Your task to perform on an android device: Open notification settings Image 0: 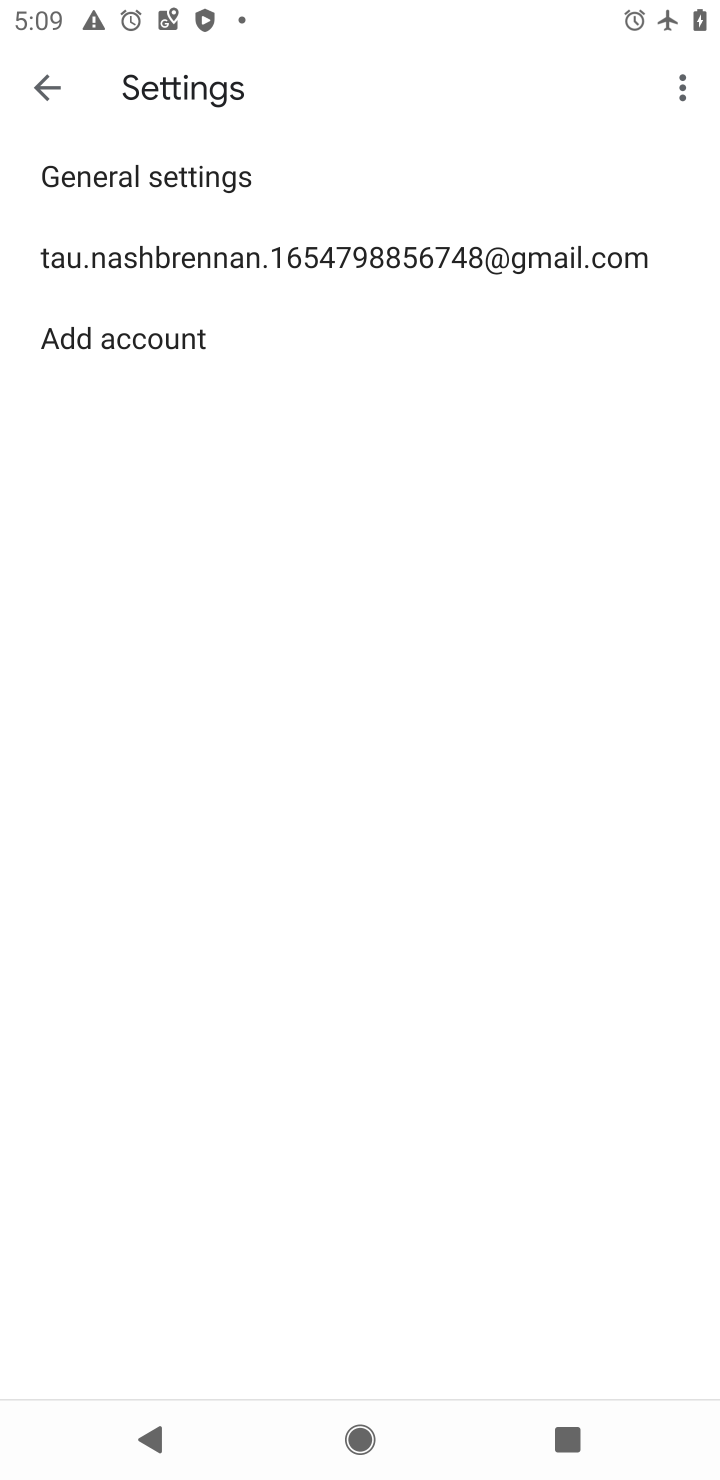
Step 0: press home button
Your task to perform on an android device: Open notification settings Image 1: 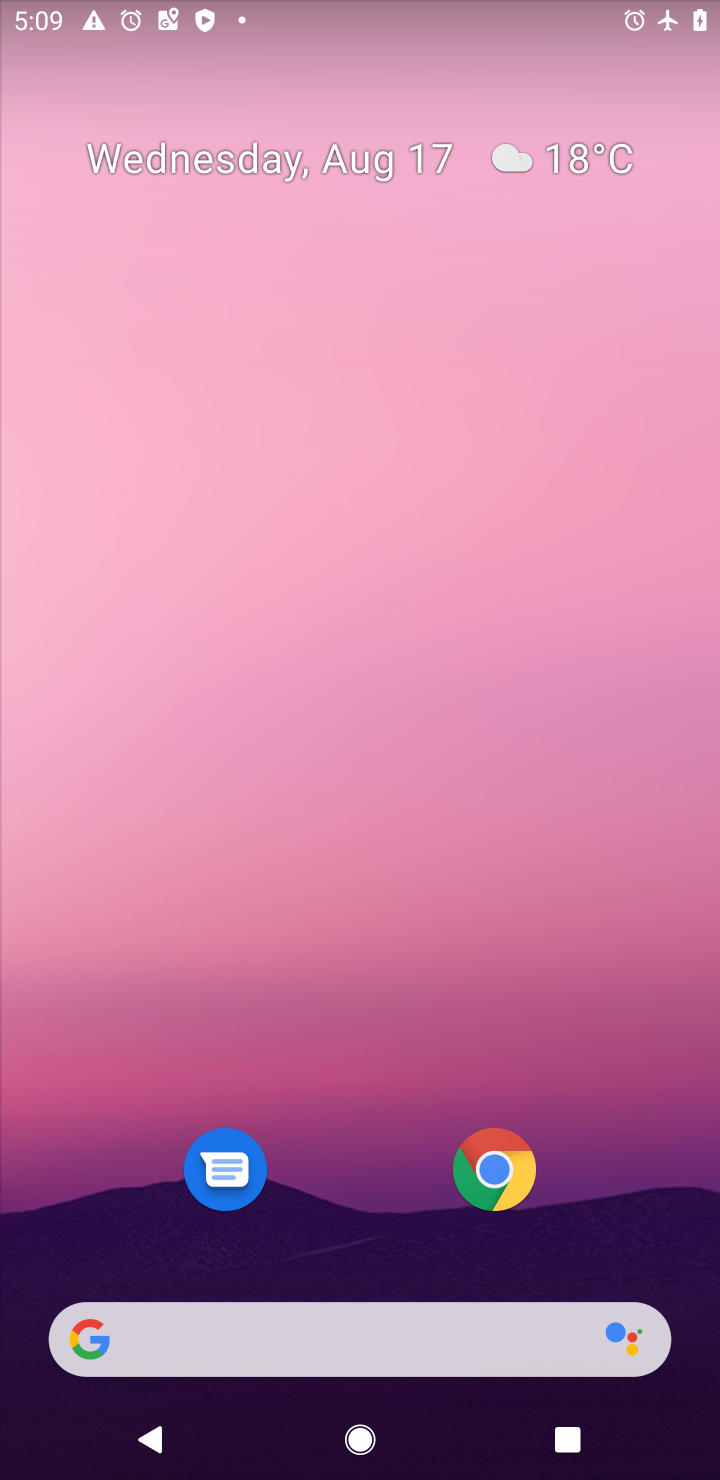
Step 1: drag from (366, 1175) to (310, 1)
Your task to perform on an android device: Open notification settings Image 2: 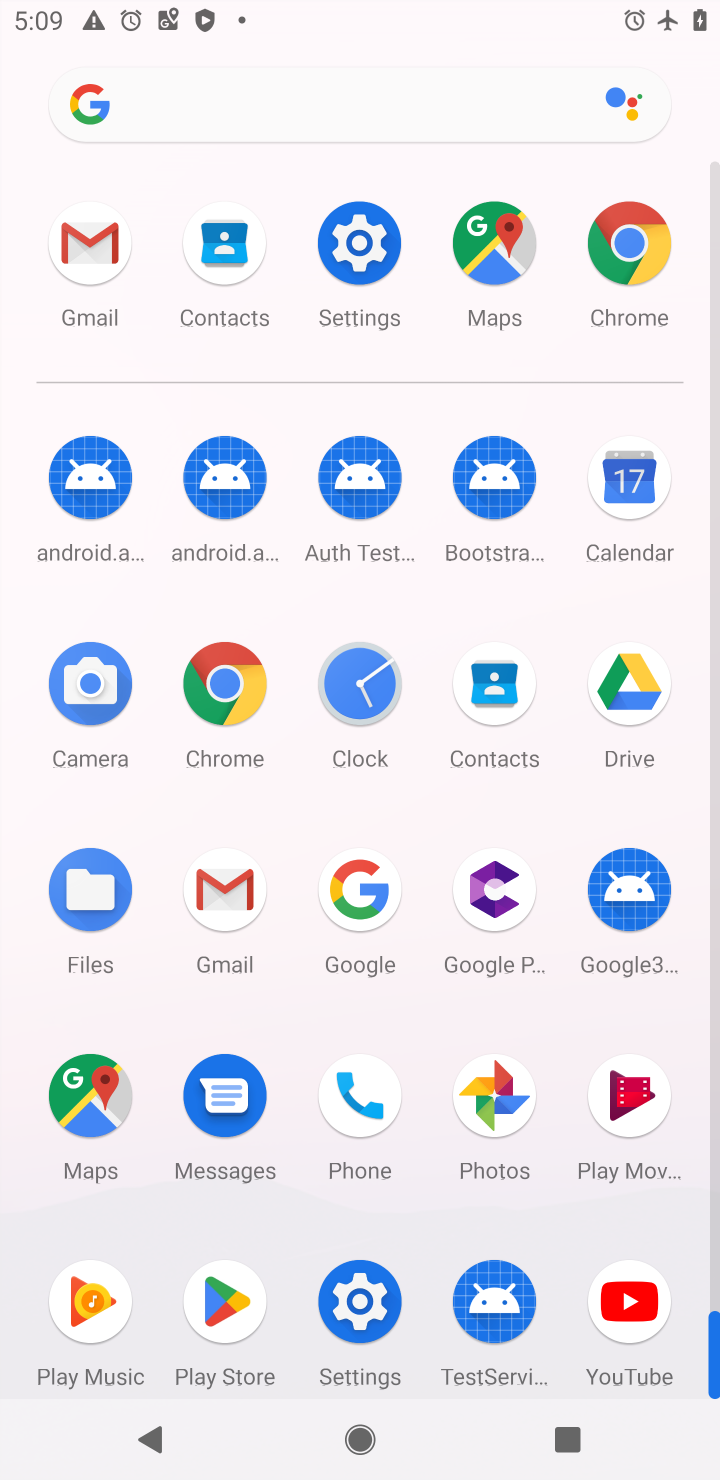
Step 2: click (380, 228)
Your task to perform on an android device: Open notification settings Image 3: 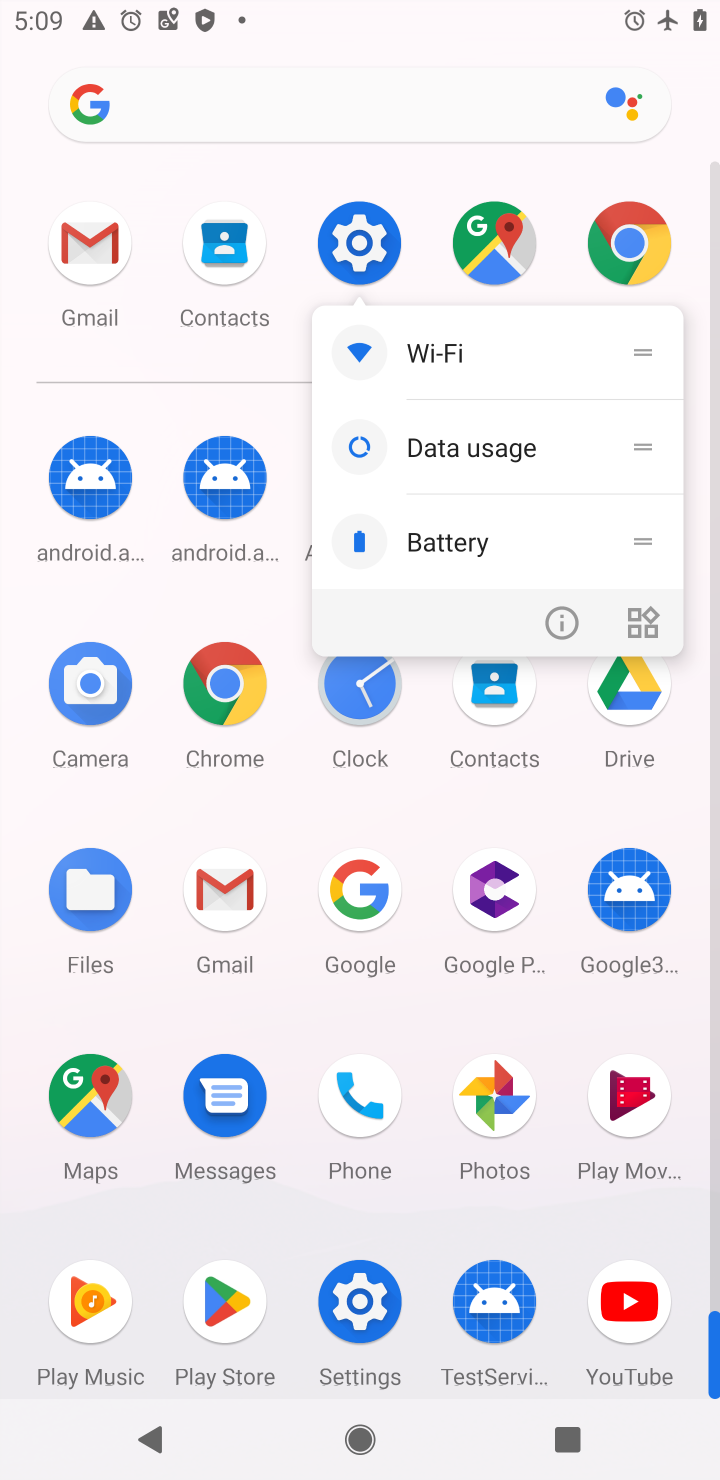
Step 3: click (357, 252)
Your task to perform on an android device: Open notification settings Image 4: 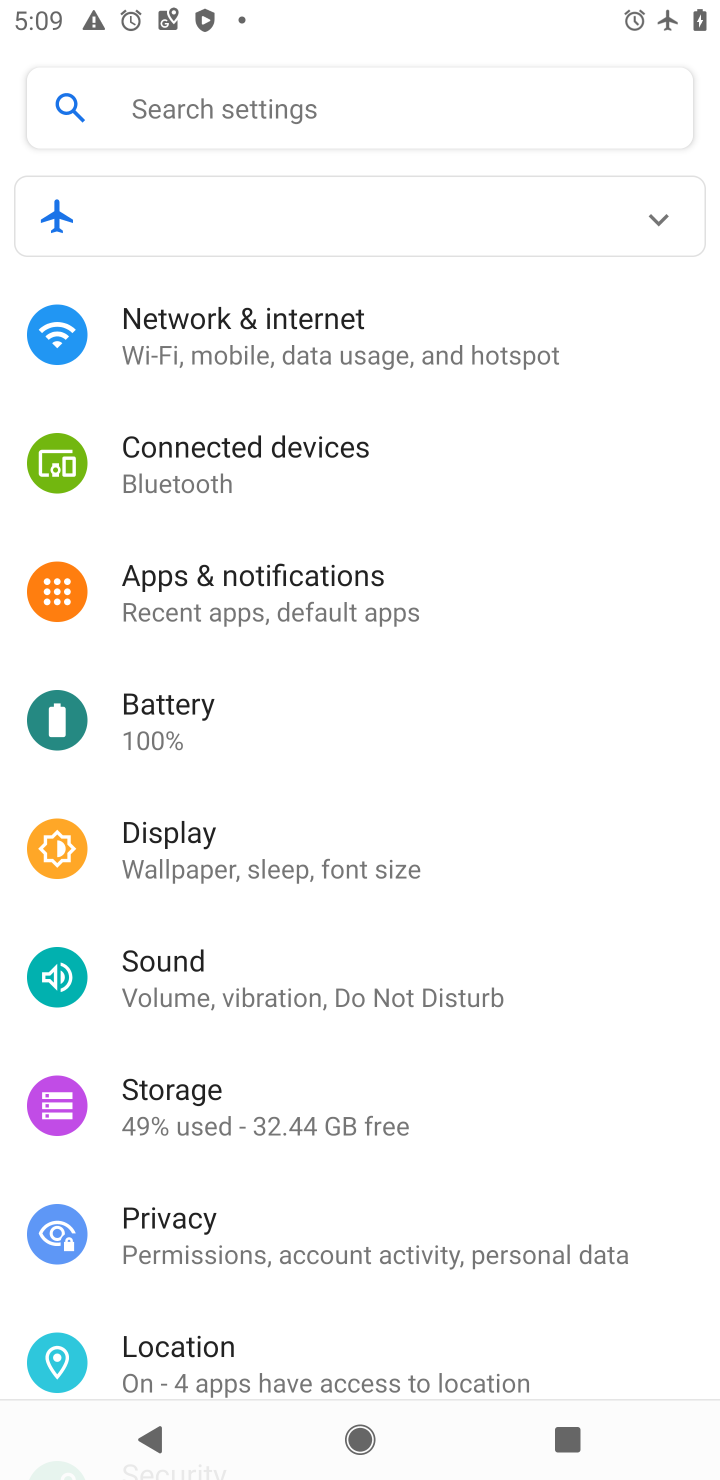
Step 4: click (319, 603)
Your task to perform on an android device: Open notification settings Image 5: 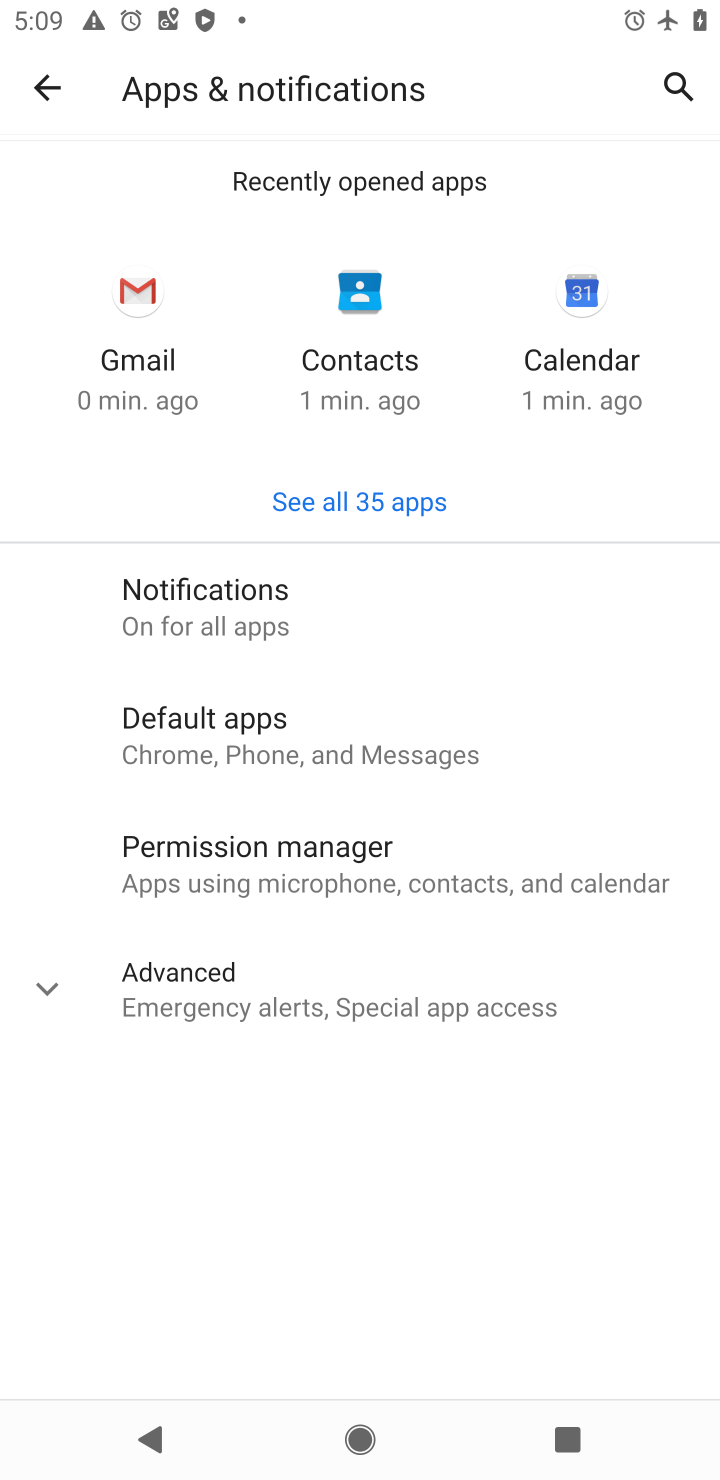
Step 5: click (170, 623)
Your task to perform on an android device: Open notification settings Image 6: 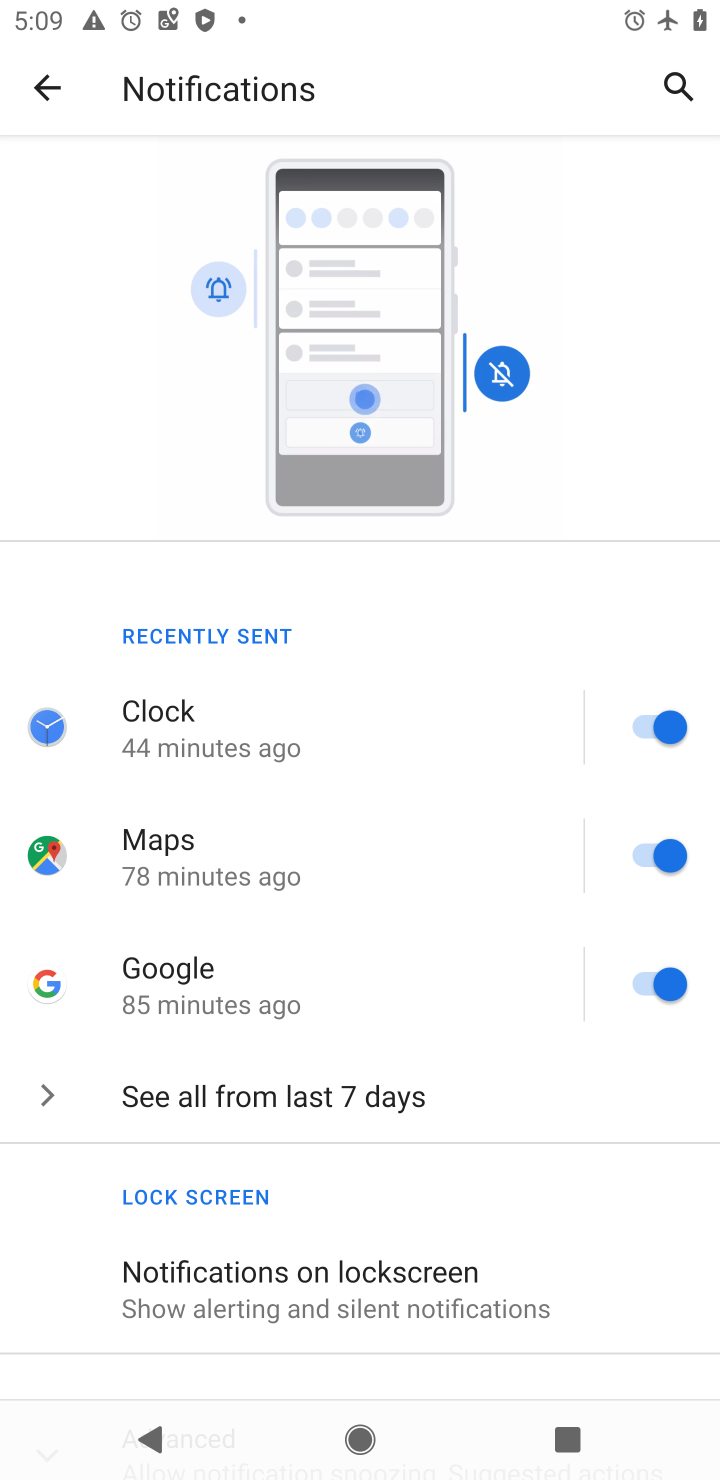
Step 6: task complete